Your task to perform on an android device: Open CNN.com Image 0: 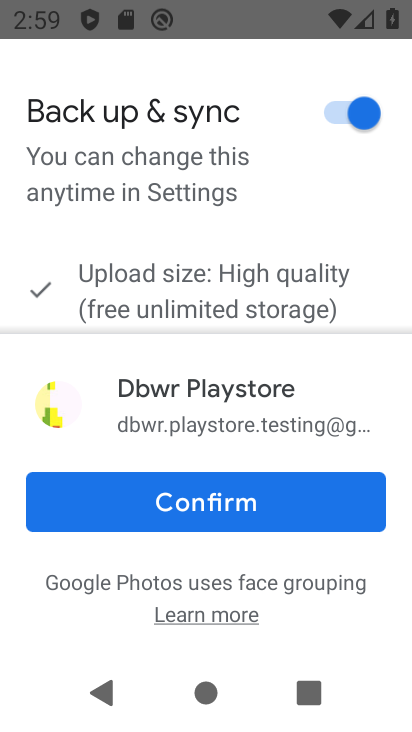
Step 0: click (297, 515)
Your task to perform on an android device: Open CNN.com Image 1: 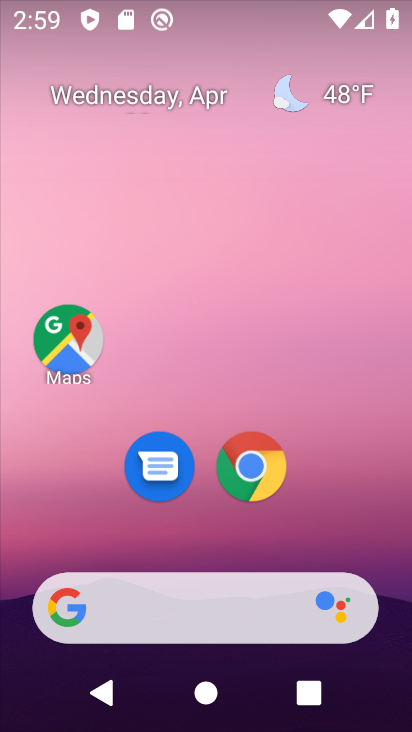
Step 1: click (189, 600)
Your task to perform on an android device: Open CNN.com Image 2: 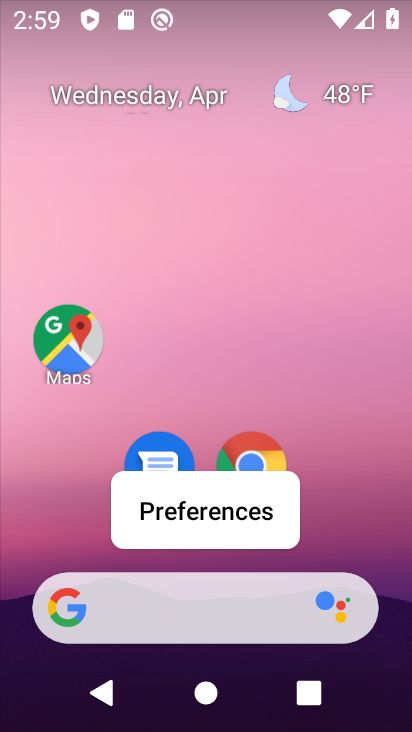
Step 2: click (187, 621)
Your task to perform on an android device: Open CNN.com Image 3: 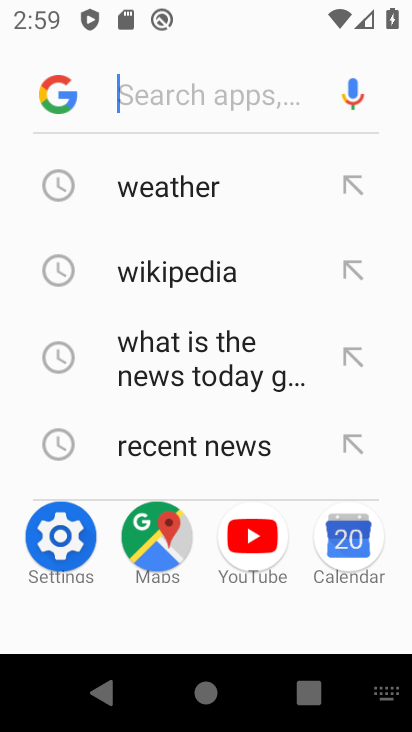
Step 3: drag from (235, 441) to (265, 198)
Your task to perform on an android device: Open CNN.com Image 4: 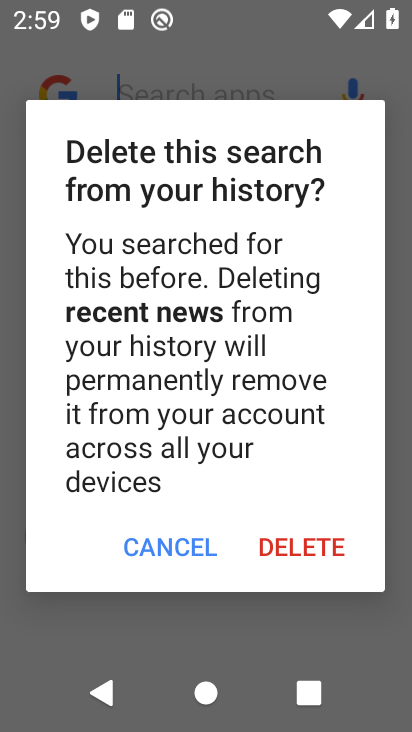
Step 4: click (181, 545)
Your task to perform on an android device: Open CNN.com Image 5: 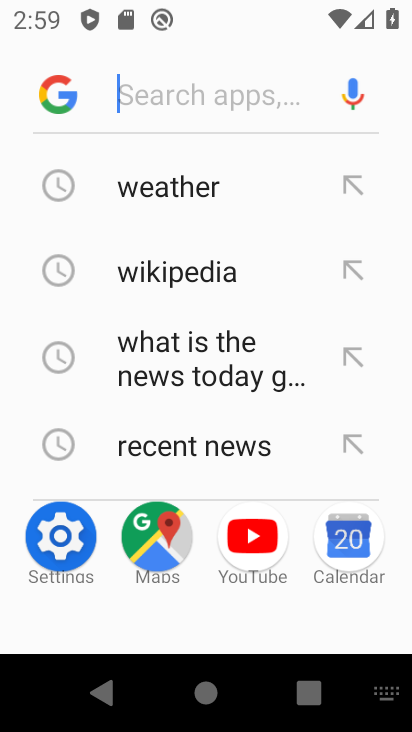
Step 5: type "cnn.com"
Your task to perform on an android device: Open CNN.com Image 6: 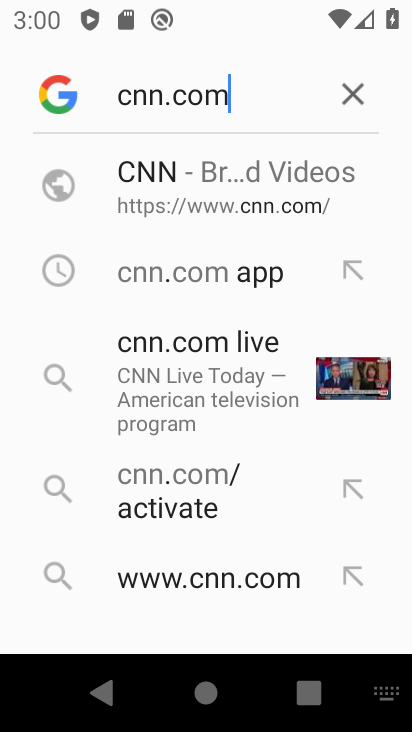
Step 6: click (236, 170)
Your task to perform on an android device: Open CNN.com Image 7: 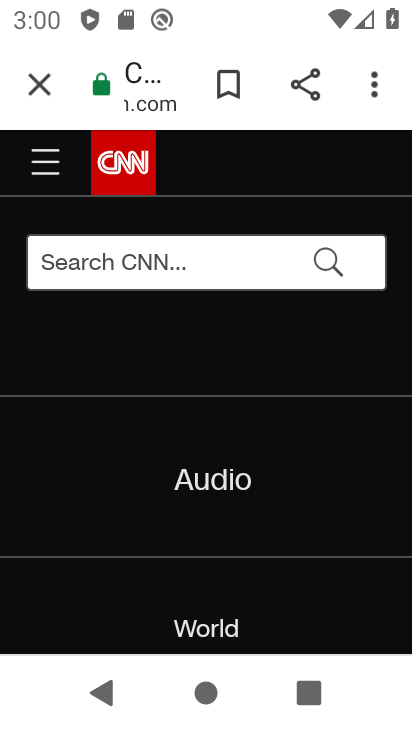
Step 7: task complete